Your task to perform on an android device: Go to Wikipedia Image 0: 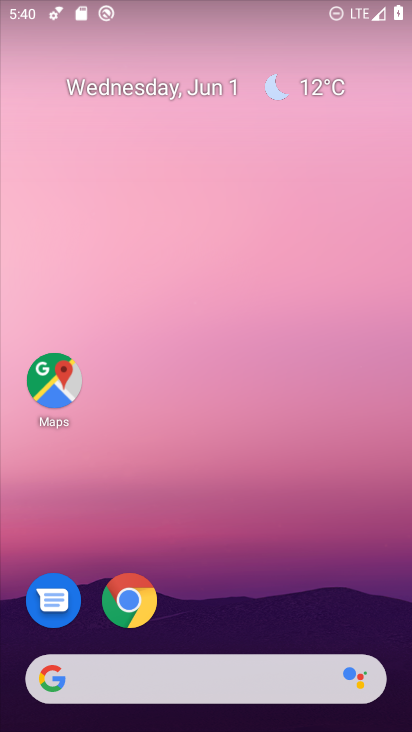
Step 0: click (122, 598)
Your task to perform on an android device: Go to Wikipedia Image 1: 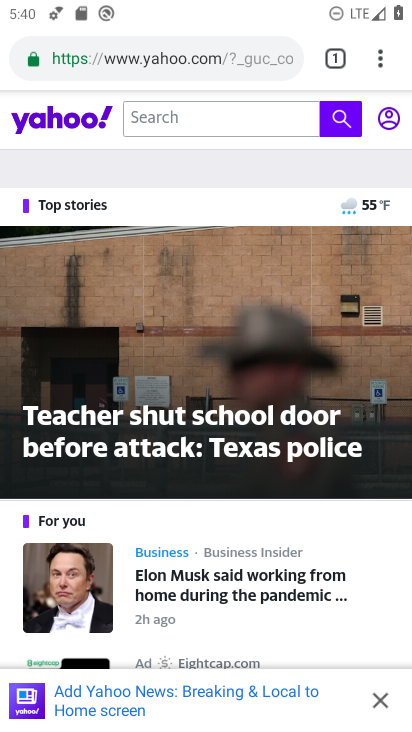
Step 1: click (280, 49)
Your task to perform on an android device: Go to Wikipedia Image 2: 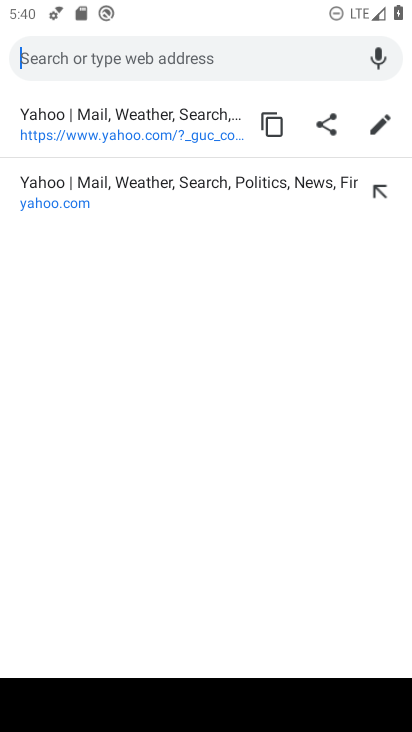
Step 2: type "wikipedia"
Your task to perform on an android device: Go to Wikipedia Image 3: 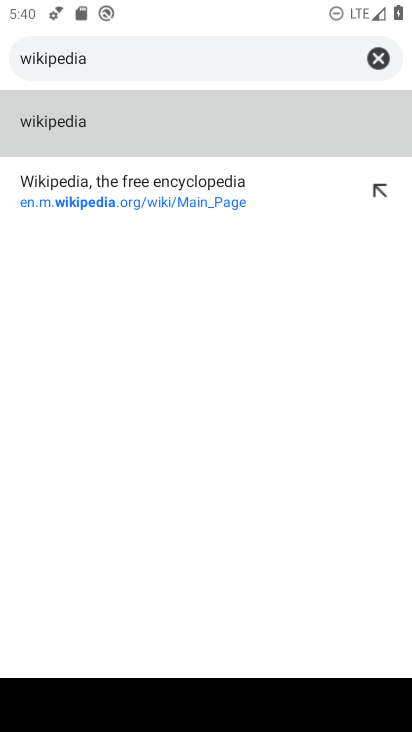
Step 3: click (80, 112)
Your task to perform on an android device: Go to Wikipedia Image 4: 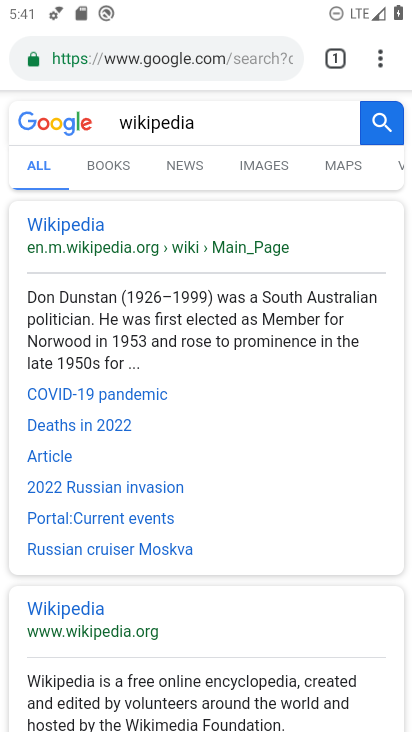
Step 4: click (85, 242)
Your task to perform on an android device: Go to Wikipedia Image 5: 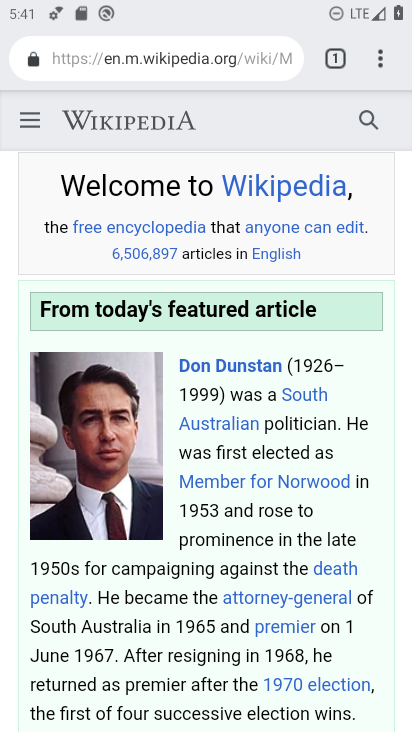
Step 5: task complete